Your task to perform on an android device: open device folders in google photos Image 0: 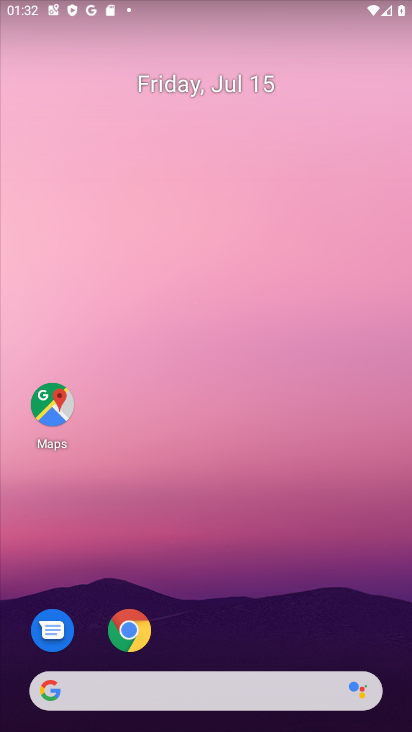
Step 0: drag from (269, 637) to (264, 246)
Your task to perform on an android device: open device folders in google photos Image 1: 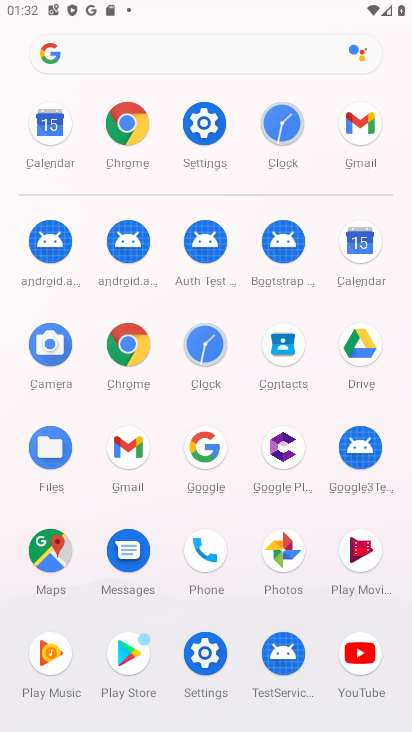
Step 1: click (282, 555)
Your task to perform on an android device: open device folders in google photos Image 2: 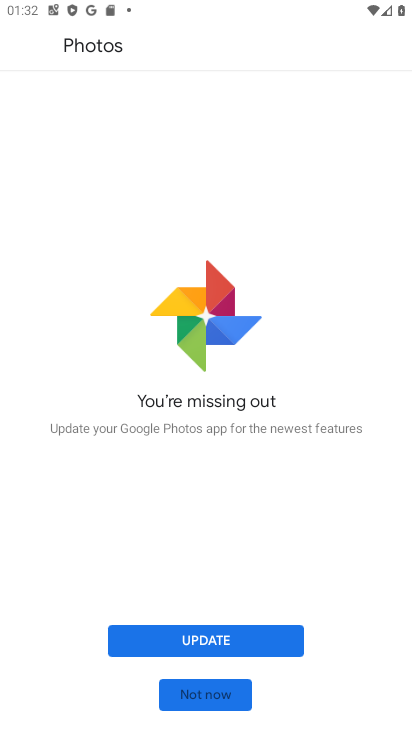
Step 2: click (214, 632)
Your task to perform on an android device: open device folders in google photos Image 3: 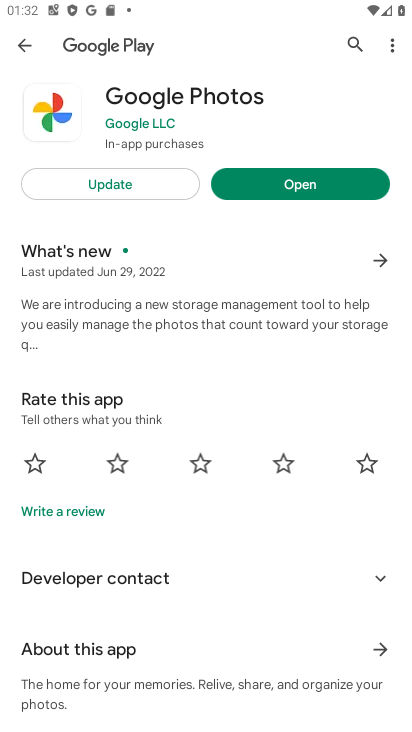
Step 3: click (59, 191)
Your task to perform on an android device: open device folders in google photos Image 4: 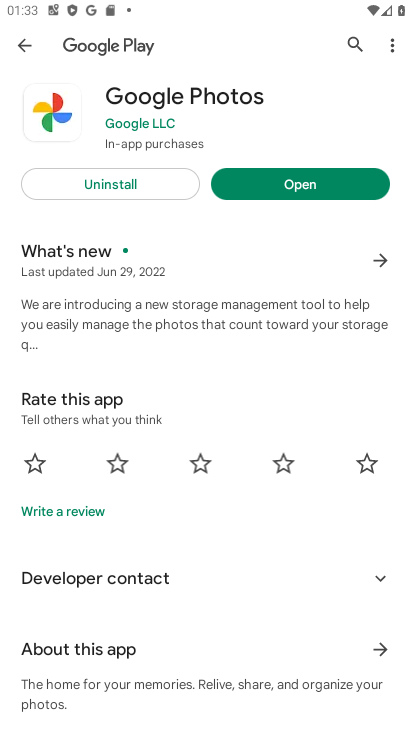
Step 4: click (290, 174)
Your task to perform on an android device: open device folders in google photos Image 5: 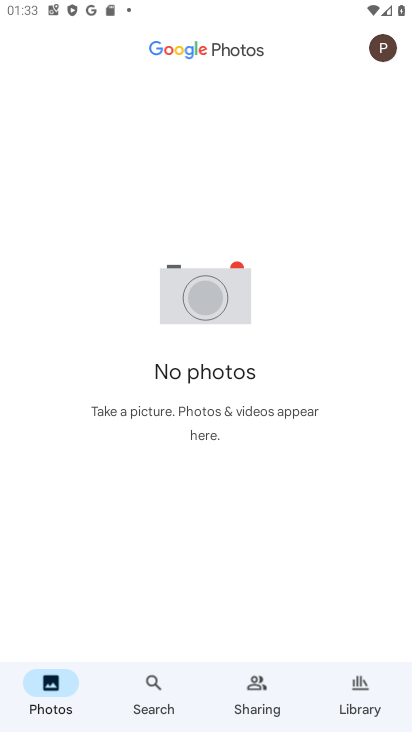
Step 5: click (376, 58)
Your task to perform on an android device: open device folders in google photos Image 6: 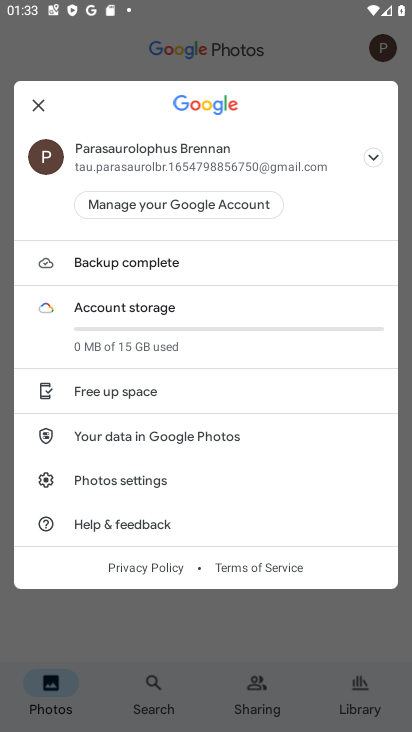
Step 6: task complete